Your task to perform on an android device: Search for a cheap bike on Walmart Image 0: 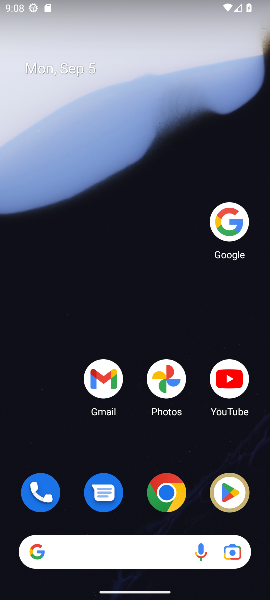
Step 0: click (229, 226)
Your task to perform on an android device: Search for a cheap bike on Walmart Image 1: 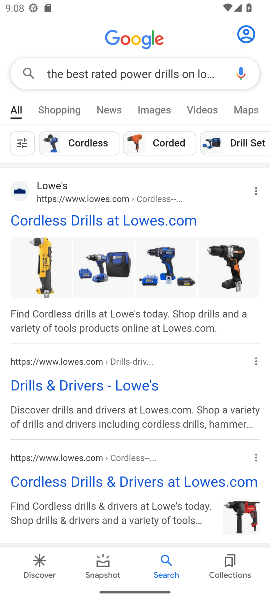
Step 1: click (181, 75)
Your task to perform on an android device: Search for a cheap bike on Walmart Image 2: 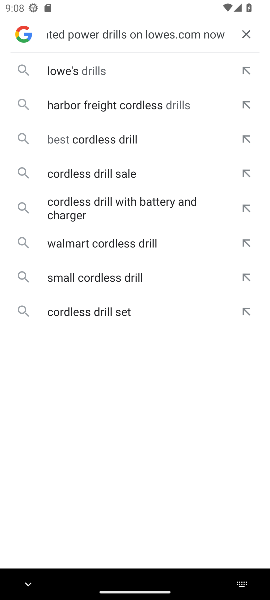
Step 2: click (242, 33)
Your task to perform on an android device: Search for a cheap bike on Walmart Image 3: 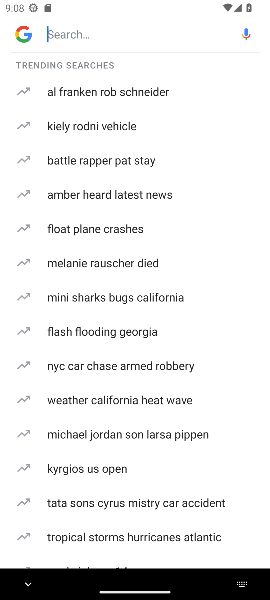
Step 3: click (92, 35)
Your task to perform on an android device: Search for a cheap bike on Walmart Image 4: 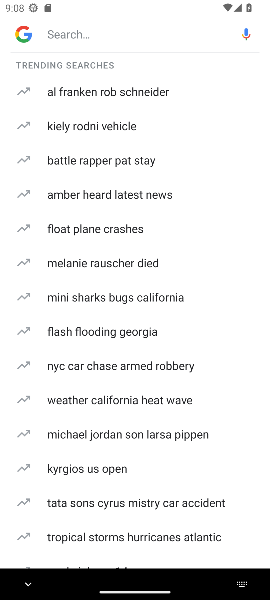
Step 4: type "a cheap bike on Walmart "
Your task to perform on an android device: Search for a cheap bike on Walmart Image 5: 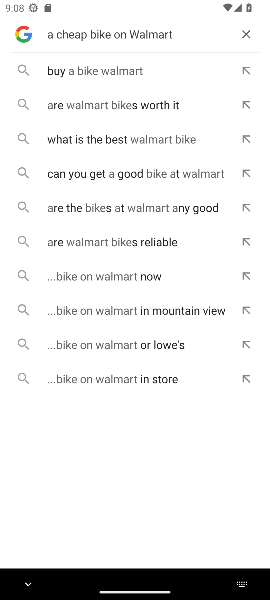
Step 5: click (129, 75)
Your task to perform on an android device: Search for a cheap bike on Walmart Image 6: 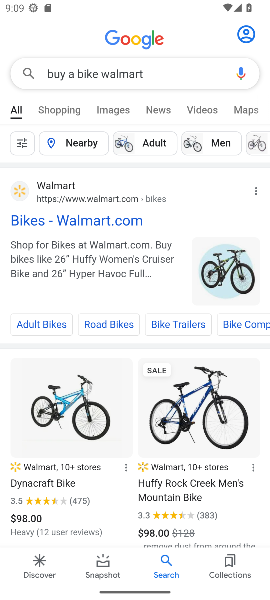
Step 6: drag from (119, 468) to (157, 169)
Your task to perform on an android device: Search for a cheap bike on Walmart Image 7: 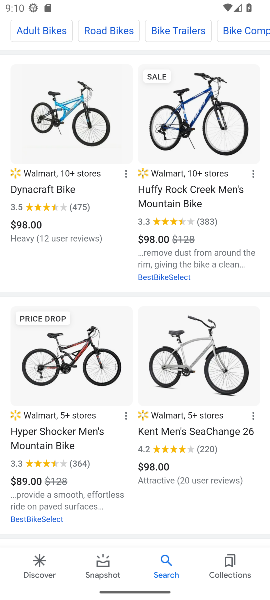
Step 7: click (159, 166)
Your task to perform on an android device: Search for a cheap bike on Walmart Image 8: 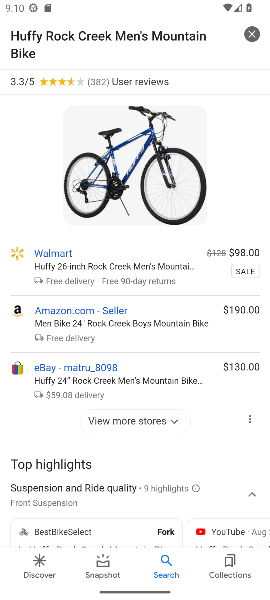
Step 8: task complete